Your task to perform on an android device: turn off data saver in the chrome app Image 0: 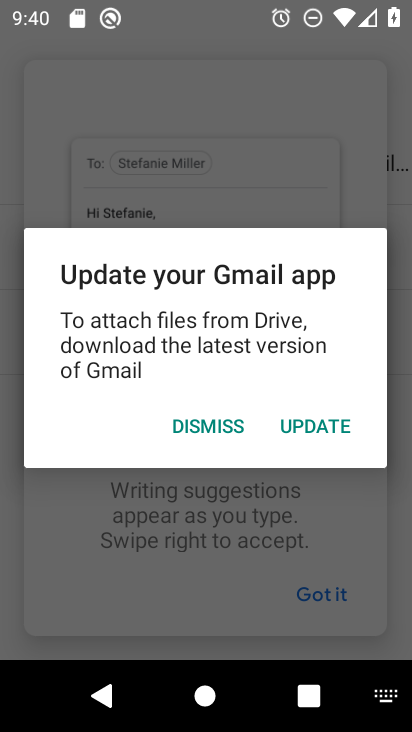
Step 0: press home button
Your task to perform on an android device: turn off data saver in the chrome app Image 1: 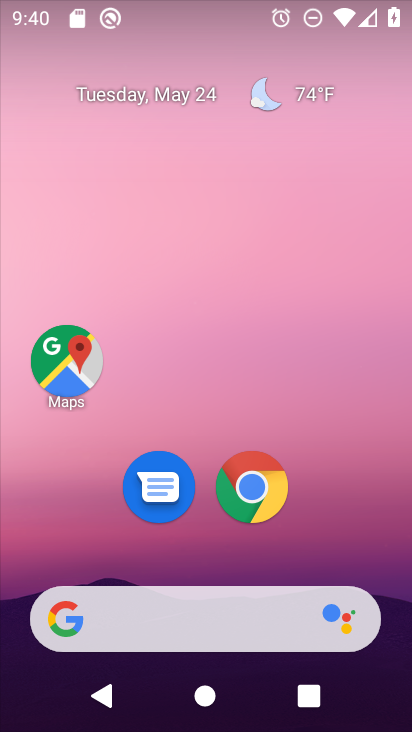
Step 1: click (257, 495)
Your task to perform on an android device: turn off data saver in the chrome app Image 2: 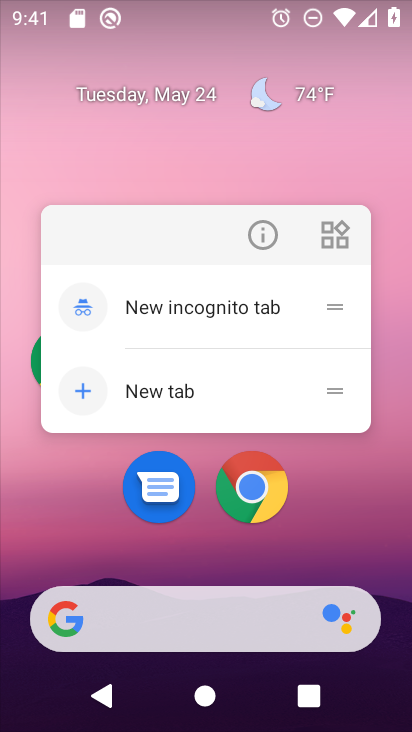
Step 2: click (254, 493)
Your task to perform on an android device: turn off data saver in the chrome app Image 3: 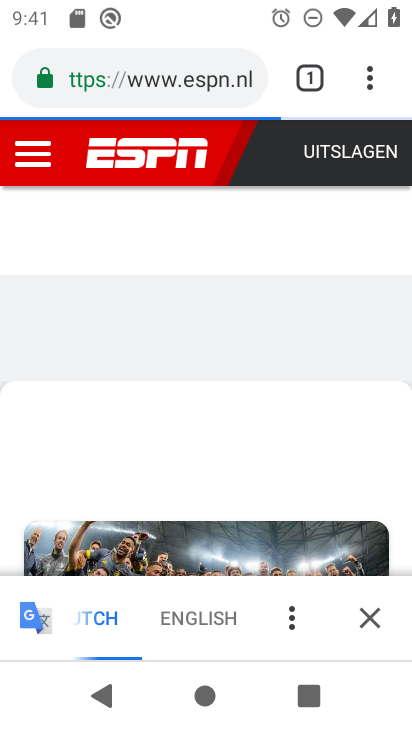
Step 3: click (372, 81)
Your task to perform on an android device: turn off data saver in the chrome app Image 4: 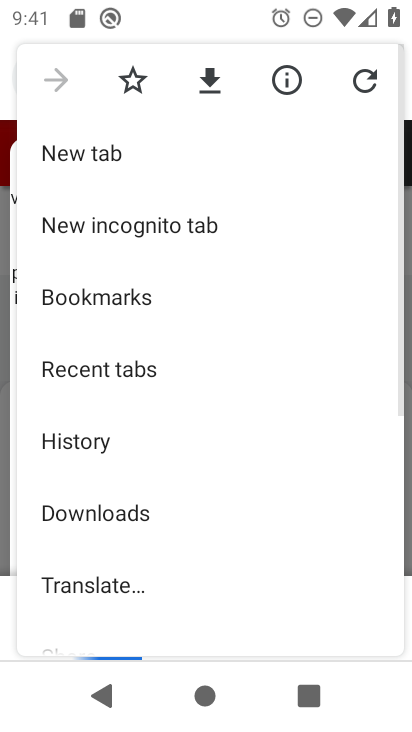
Step 4: drag from (186, 516) to (194, 121)
Your task to perform on an android device: turn off data saver in the chrome app Image 5: 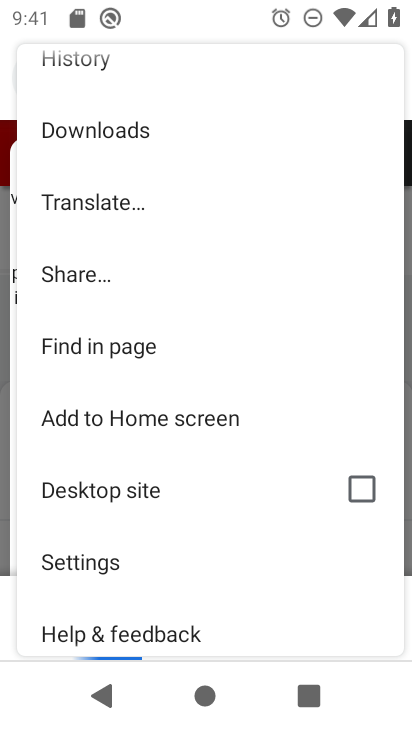
Step 5: drag from (138, 496) to (142, 187)
Your task to perform on an android device: turn off data saver in the chrome app Image 6: 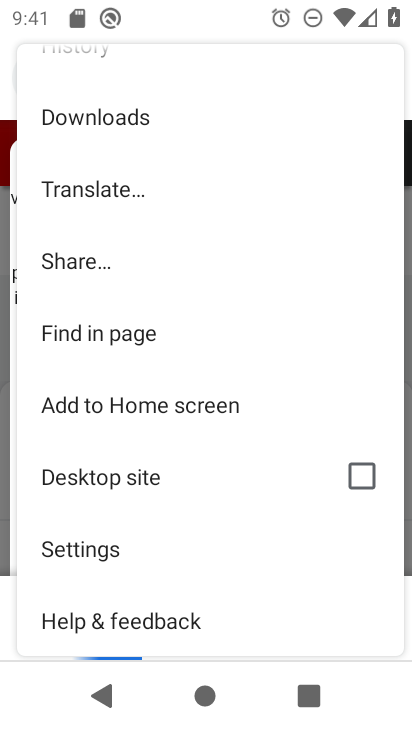
Step 6: click (77, 550)
Your task to perform on an android device: turn off data saver in the chrome app Image 7: 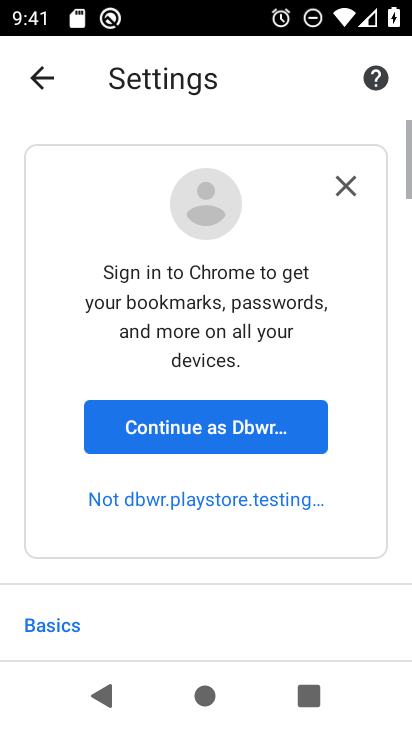
Step 7: drag from (174, 554) to (182, 147)
Your task to perform on an android device: turn off data saver in the chrome app Image 8: 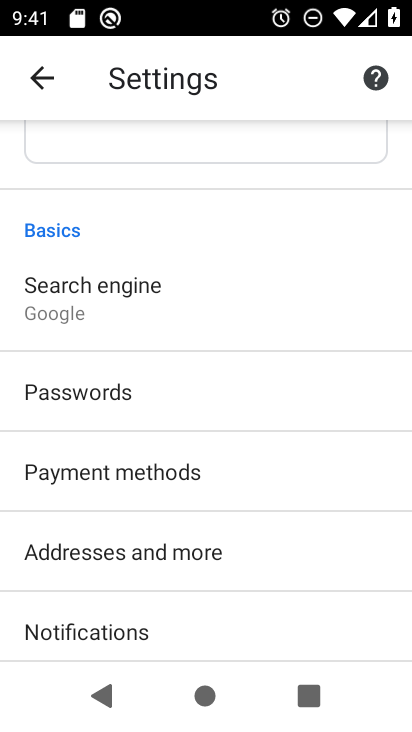
Step 8: drag from (150, 518) to (166, 222)
Your task to perform on an android device: turn off data saver in the chrome app Image 9: 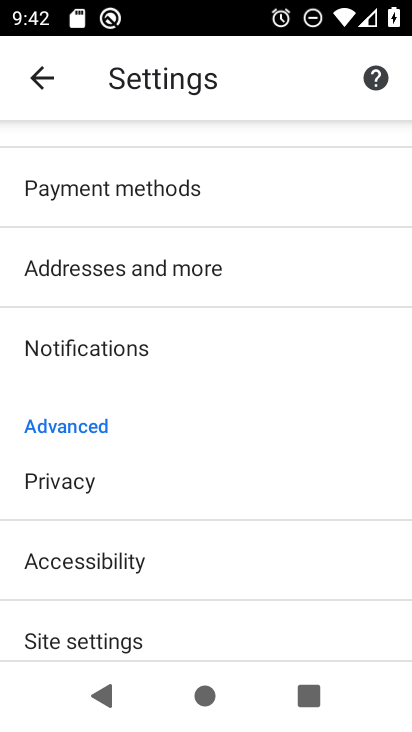
Step 9: drag from (144, 621) to (167, 195)
Your task to perform on an android device: turn off data saver in the chrome app Image 10: 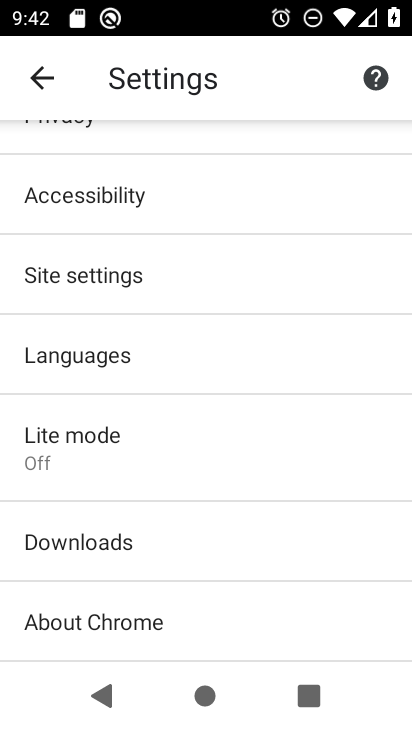
Step 10: click (72, 457)
Your task to perform on an android device: turn off data saver in the chrome app Image 11: 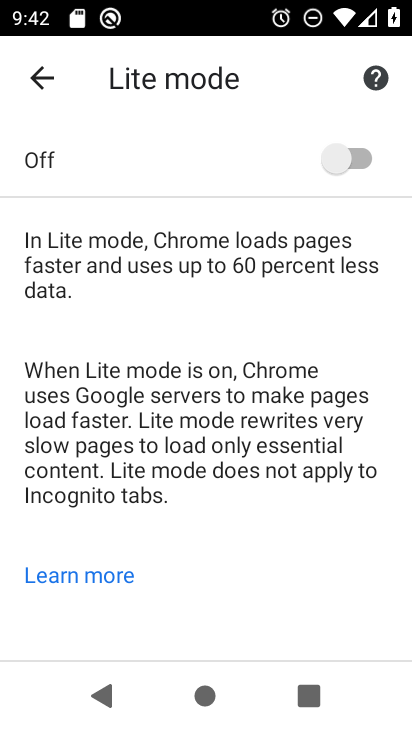
Step 11: task complete